Your task to perform on an android device: turn vacation reply on in the gmail app Image 0: 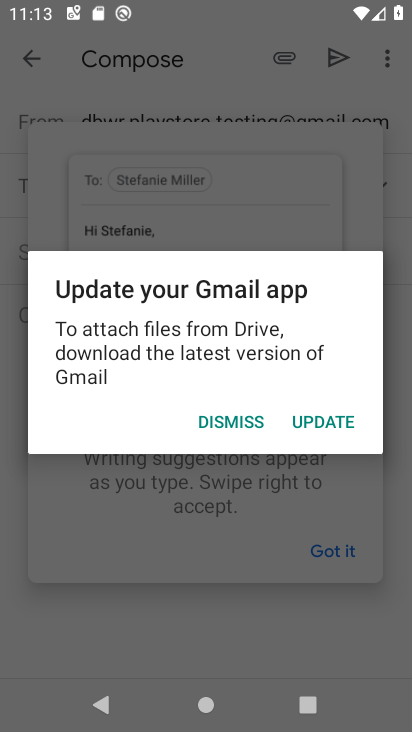
Step 0: press home button
Your task to perform on an android device: turn vacation reply on in the gmail app Image 1: 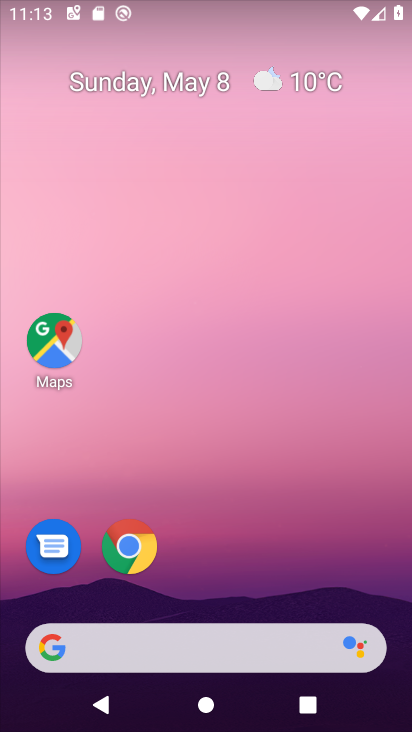
Step 1: drag from (192, 607) to (336, 206)
Your task to perform on an android device: turn vacation reply on in the gmail app Image 2: 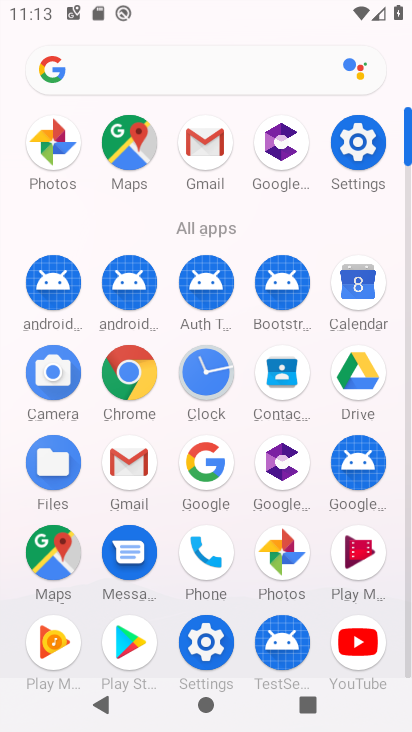
Step 2: click (133, 468)
Your task to perform on an android device: turn vacation reply on in the gmail app Image 3: 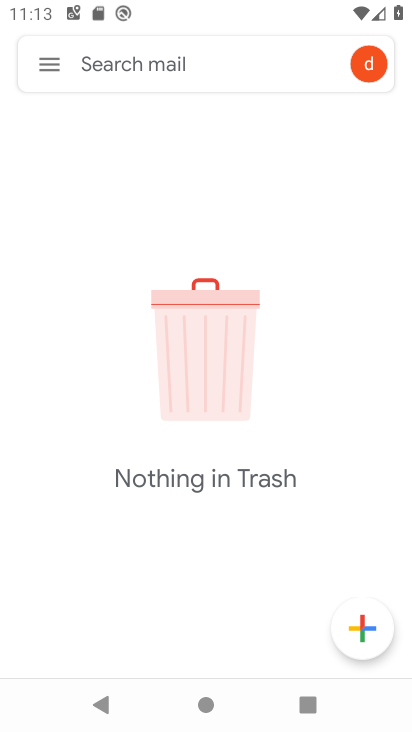
Step 3: click (43, 67)
Your task to perform on an android device: turn vacation reply on in the gmail app Image 4: 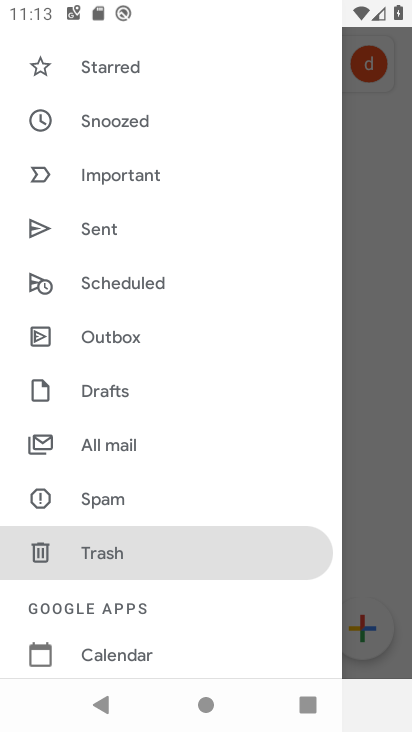
Step 4: drag from (164, 645) to (352, 225)
Your task to perform on an android device: turn vacation reply on in the gmail app Image 5: 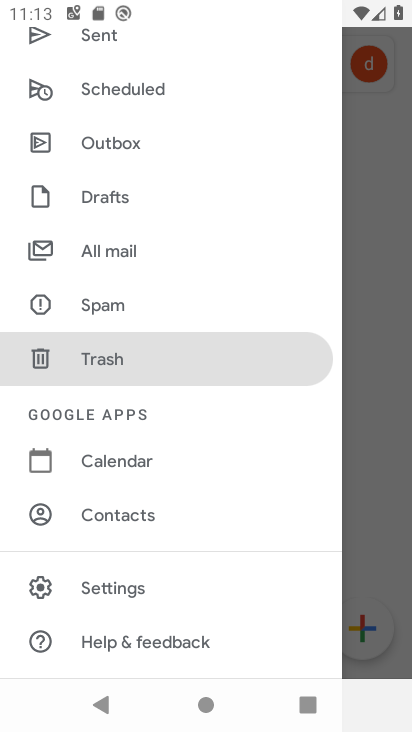
Step 5: click (158, 592)
Your task to perform on an android device: turn vacation reply on in the gmail app Image 6: 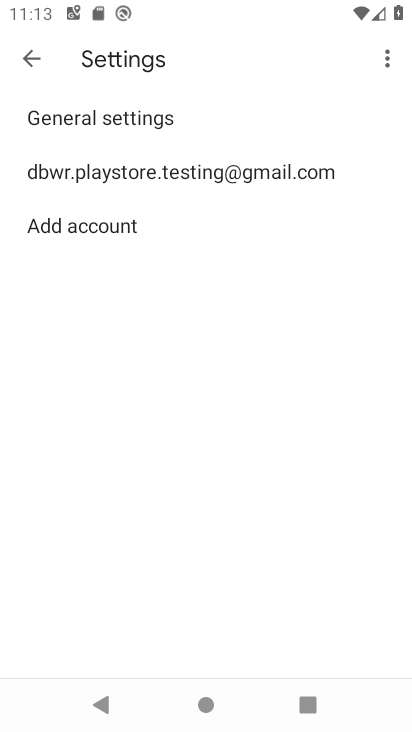
Step 6: click (262, 176)
Your task to perform on an android device: turn vacation reply on in the gmail app Image 7: 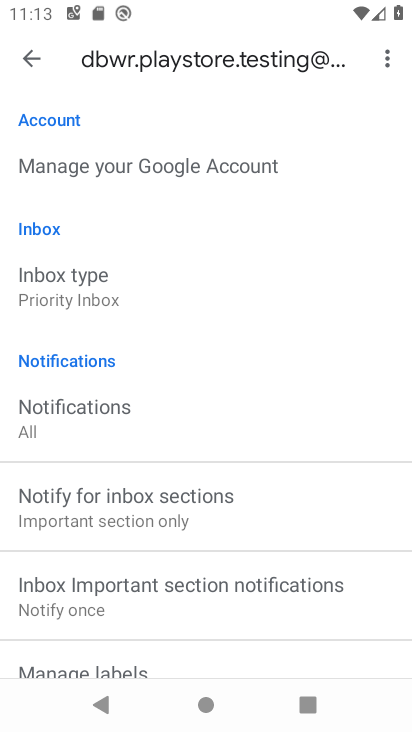
Step 7: drag from (204, 601) to (283, 361)
Your task to perform on an android device: turn vacation reply on in the gmail app Image 8: 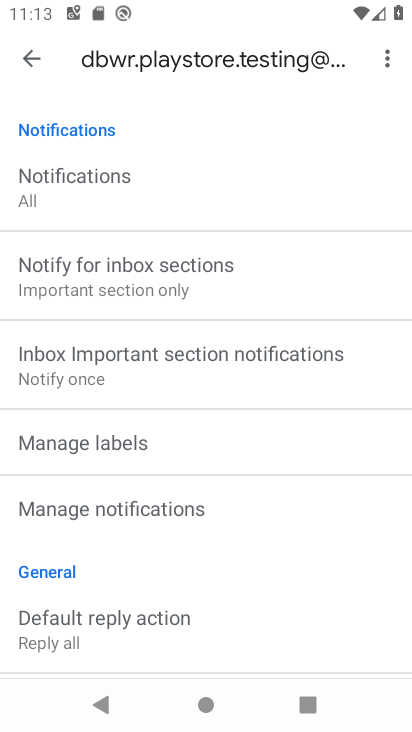
Step 8: drag from (241, 678) to (307, 488)
Your task to perform on an android device: turn vacation reply on in the gmail app Image 9: 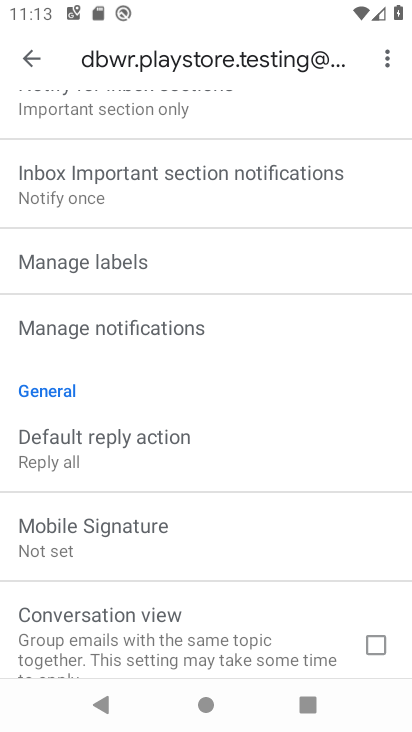
Step 9: drag from (227, 622) to (300, 320)
Your task to perform on an android device: turn vacation reply on in the gmail app Image 10: 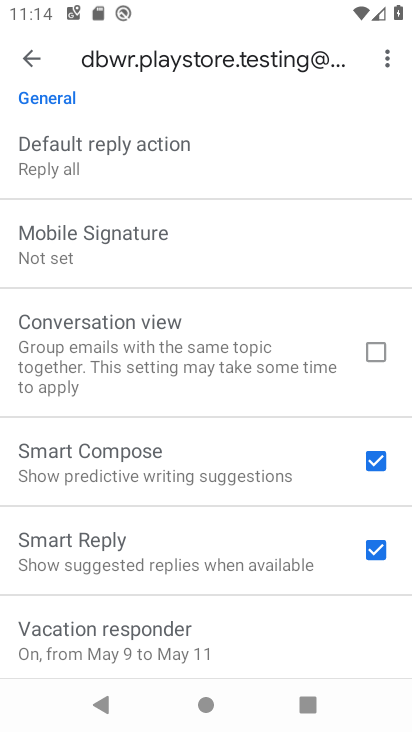
Step 10: click (147, 642)
Your task to perform on an android device: turn vacation reply on in the gmail app Image 11: 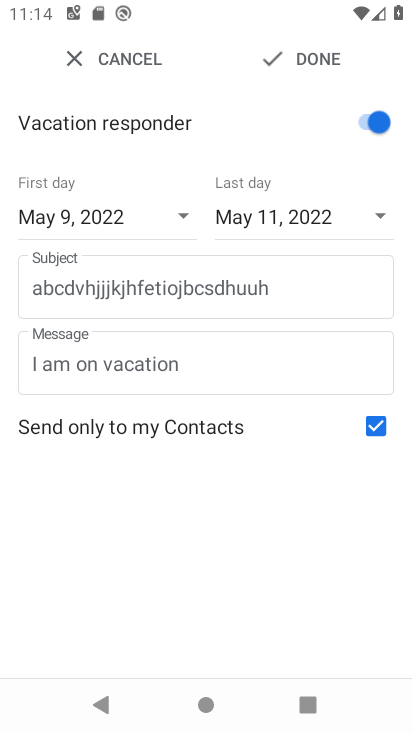
Step 11: task complete